Your task to perform on an android device: Go to settings Image 0: 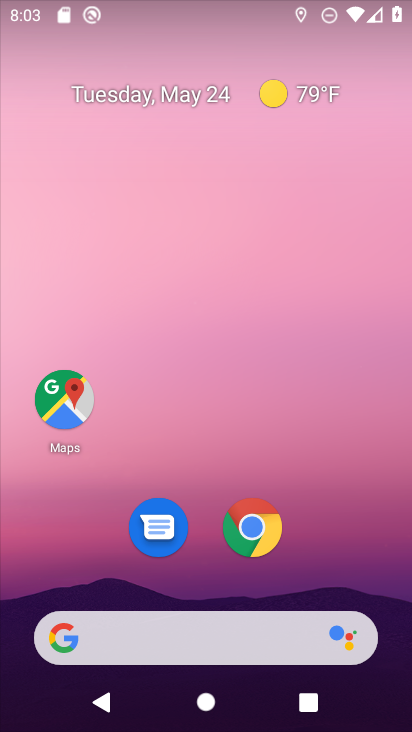
Step 0: drag from (319, 521) to (236, 97)
Your task to perform on an android device: Go to settings Image 1: 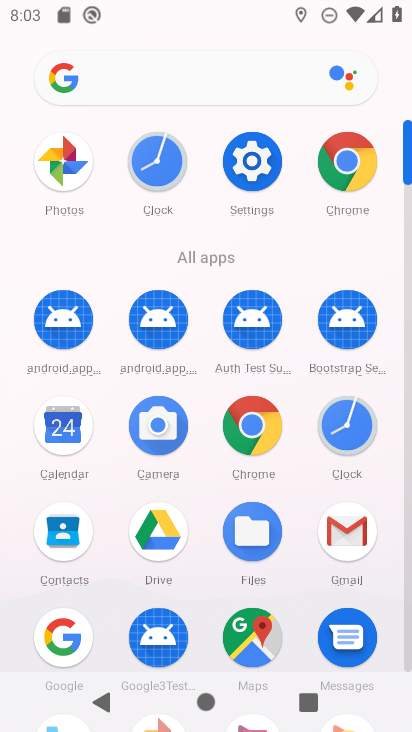
Step 1: click (257, 161)
Your task to perform on an android device: Go to settings Image 2: 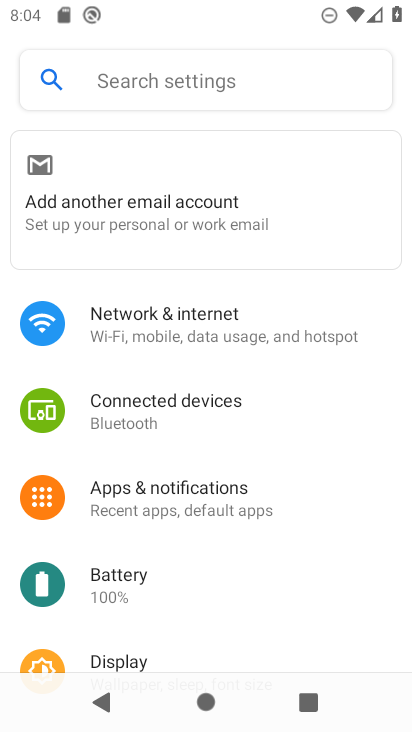
Step 2: task complete